Your task to perform on an android device: open a bookmark in the chrome app Image 0: 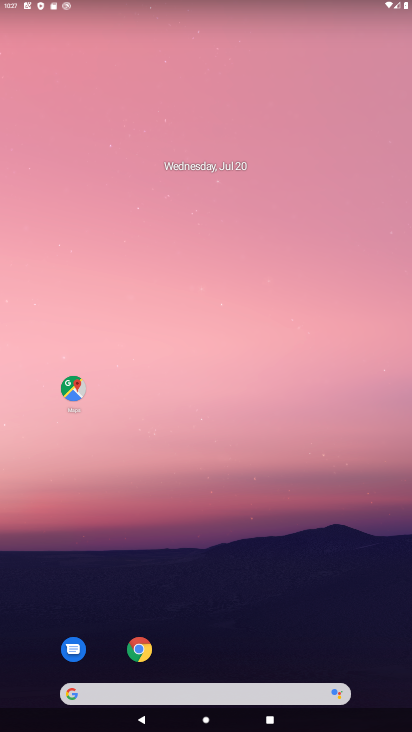
Step 0: click (154, 645)
Your task to perform on an android device: open a bookmark in the chrome app Image 1: 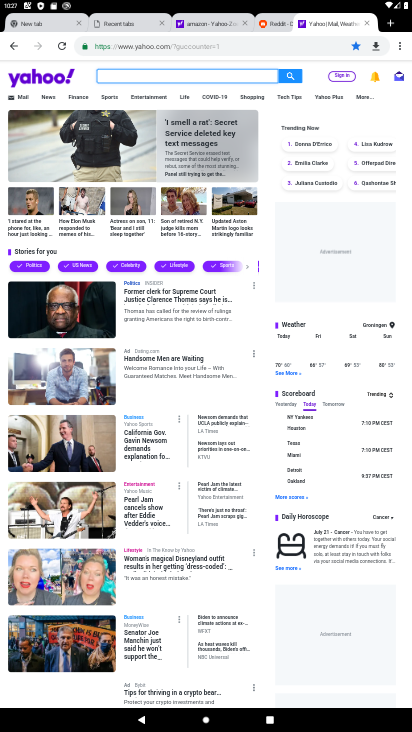
Step 1: click (402, 36)
Your task to perform on an android device: open a bookmark in the chrome app Image 2: 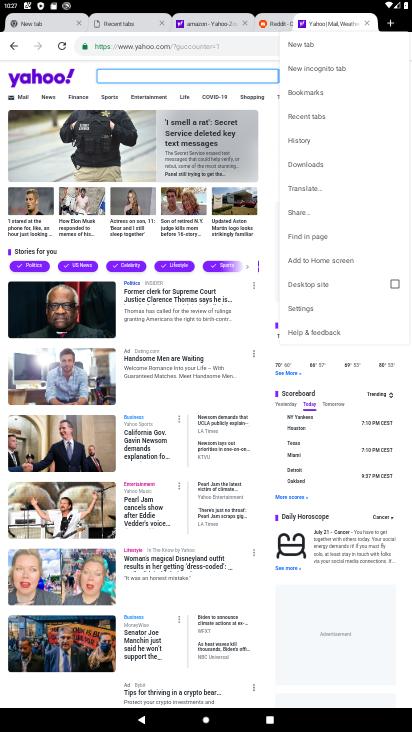
Step 2: click (307, 87)
Your task to perform on an android device: open a bookmark in the chrome app Image 3: 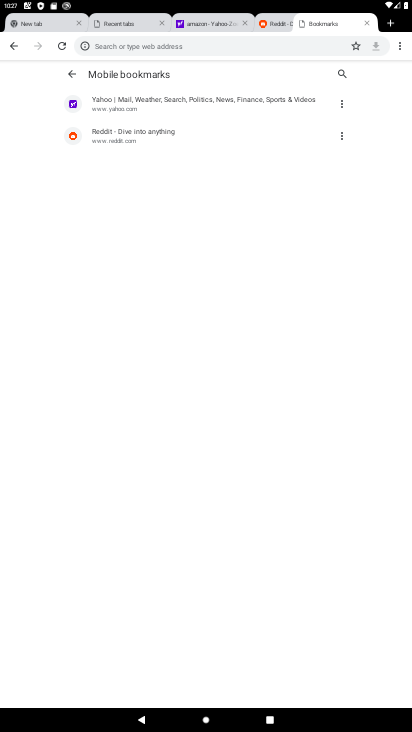
Step 3: task complete